Your task to perform on an android device: Open location settings Image 0: 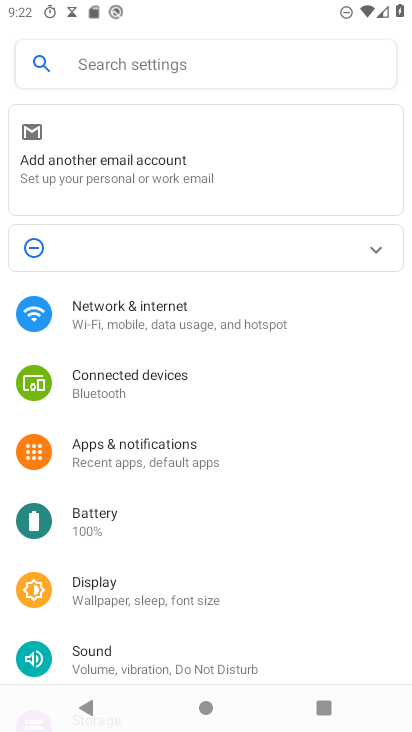
Step 0: drag from (178, 596) to (186, 306)
Your task to perform on an android device: Open location settings Image 1: 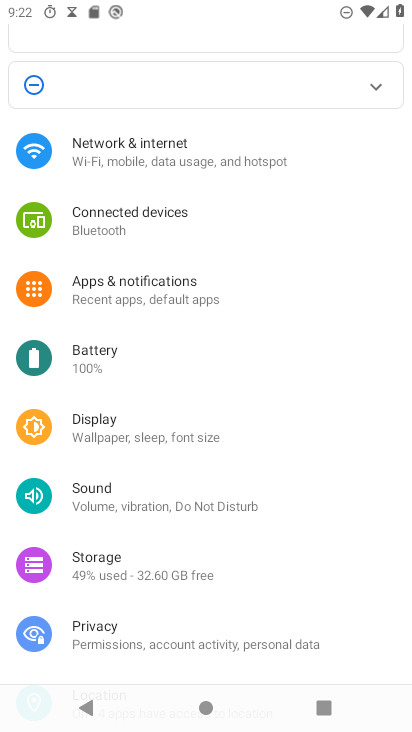
Step 1: drag from (217, 549) to (270, 235)
Your task to perform on an android device: Open location settings Image 2: 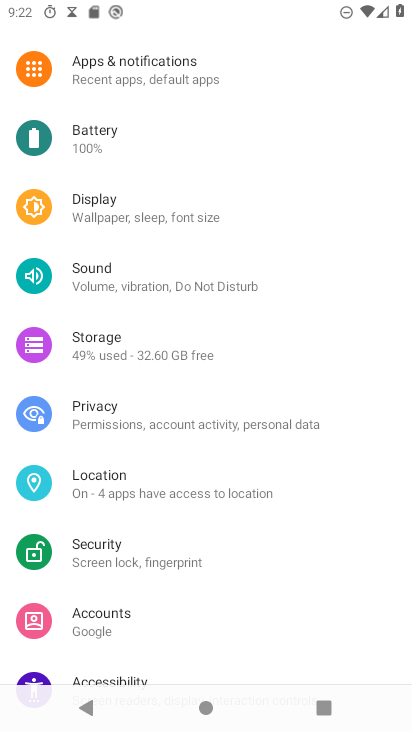
Step 2: click (84, 495)
Your task to perform on an android device: Open location settings Image 3: 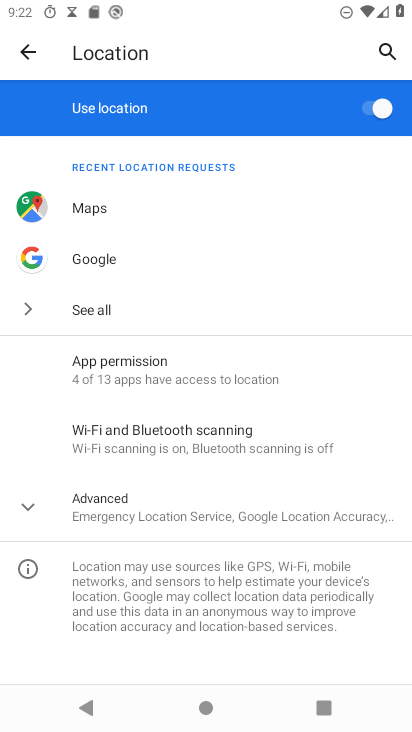
Step 3: task complete